Your task to perform on an android device: all mails in gmail Image 0: 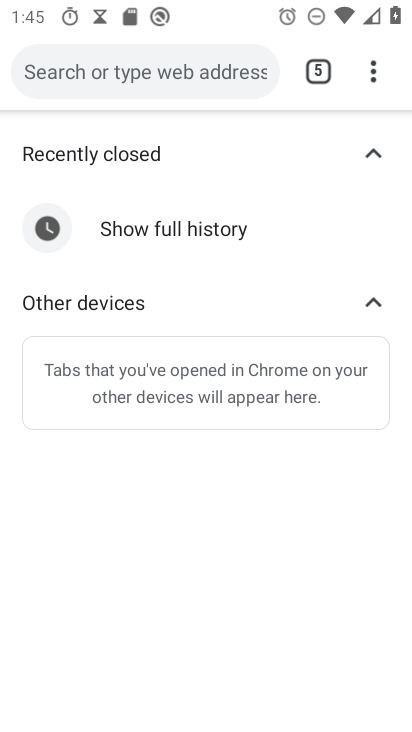
Step 0: press home button
Your task to perform on an android device: all mails in gmail Image 1: 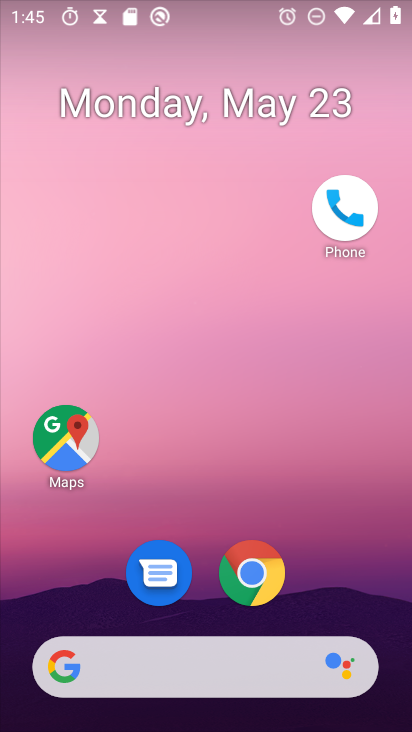
Step 1: drag from (127, 668) to (242, 142)
Your task to perform on an android device: all mails in gmail Image 2: 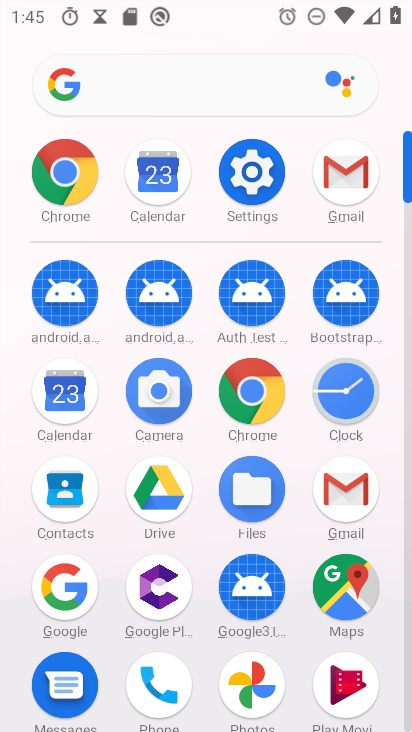
Step 2: click (339, 184)
Your task to perform on an android device: all mails in gmail Image 3: 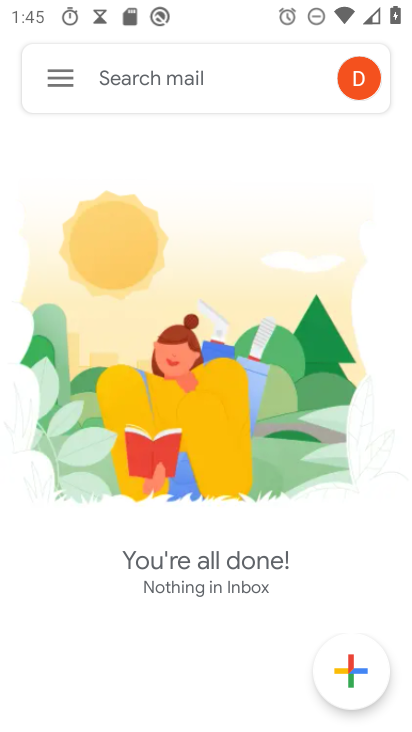
Step 3: task complete